Your task to perform on an android device: open a new tab in the chrome app Image 0: 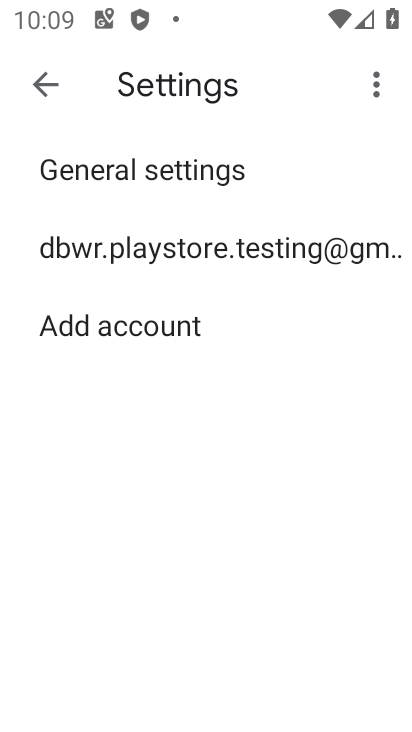
Step 0: press home button
Your task to perform on an android device: open a new tab in the chrome app Image 1: 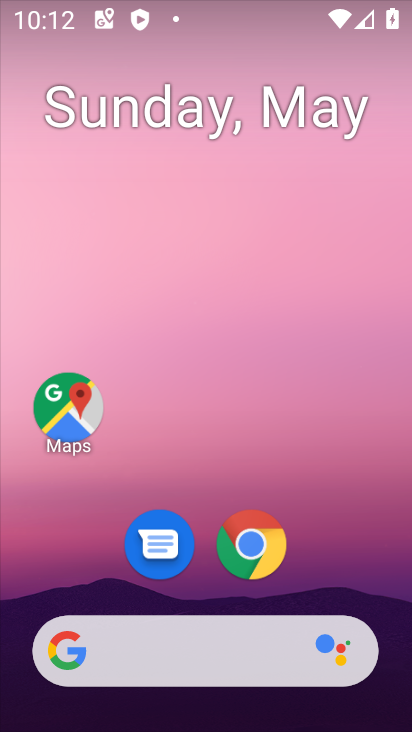
Step 1: drag from (309, 565) to (385, 92)
Your task to perform on an android device: open a new tab in the chrome app Image 2: 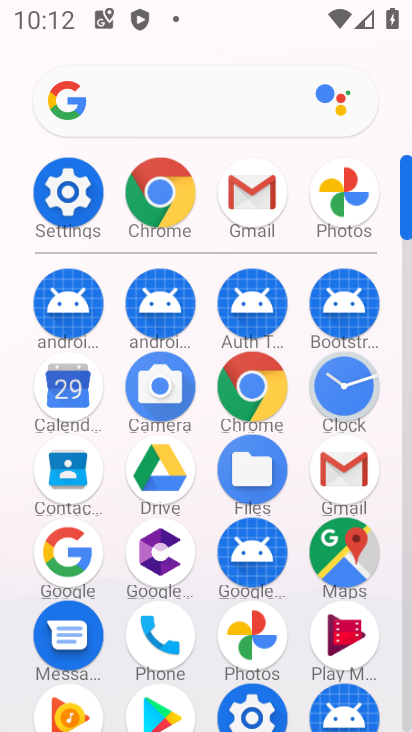
Step 2: click (168, 198)
Your task to perform on an android device: open a new tab in the chrome app Image 3: 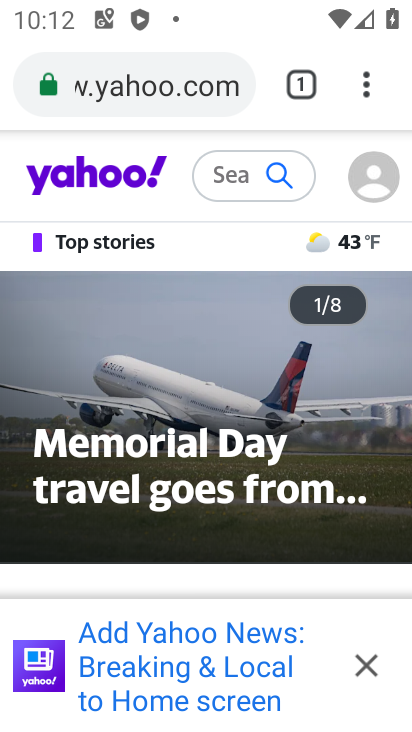
Step 3: task complete